Your task to perform on an android device: Open CNN.com Image 0: 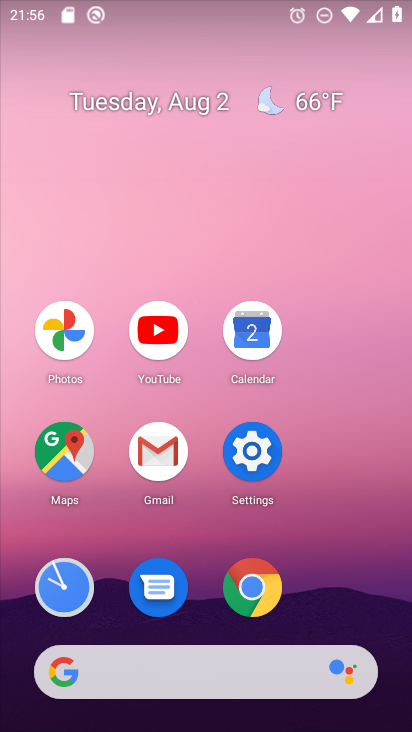
Step 0: click (251, 590)
Your task to perform on an android device: Open CNN.com Image 1: 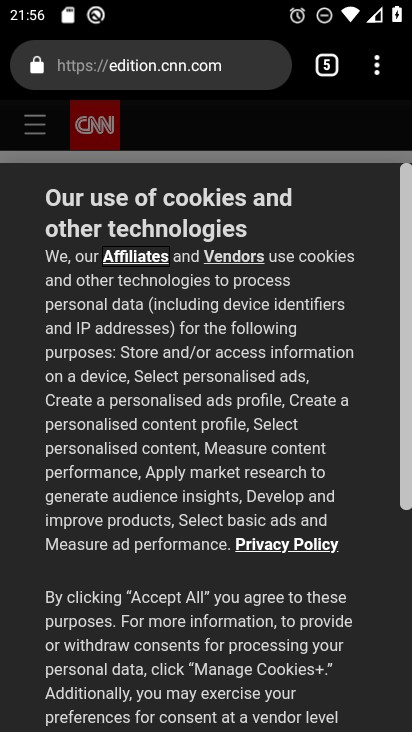
Step 1: drag from (256, 633) to (246, 67)
Your task to perform on an android device: Open CNN.com Image 2: 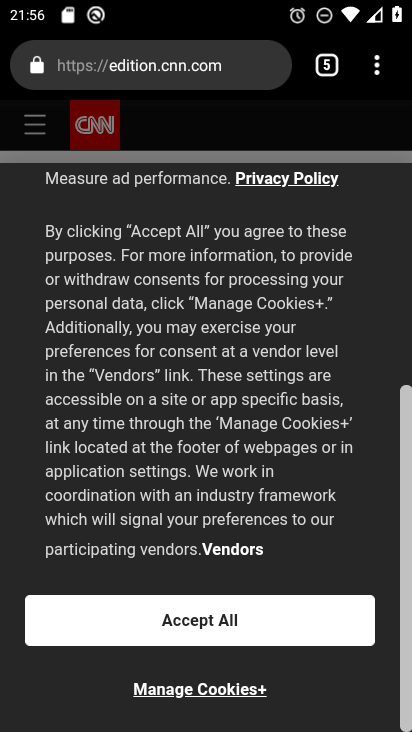
Step 2: click (230, 613)
Your task to perform on an android device: Open CNN.com Image 3: 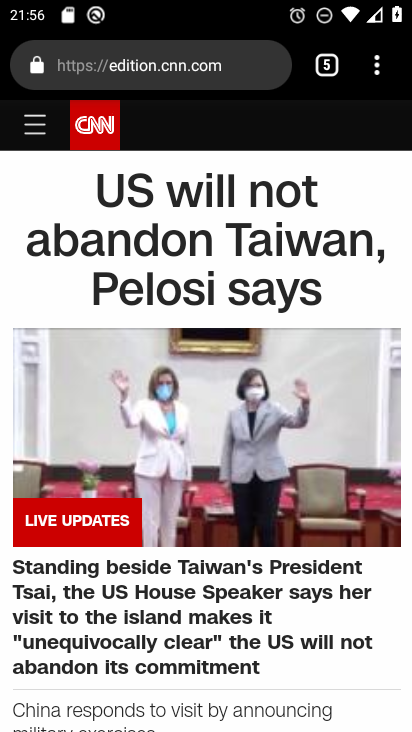
Step 3: task complete